Your task to perform on an android device: toggle show notifications on the lock screen Image 0: 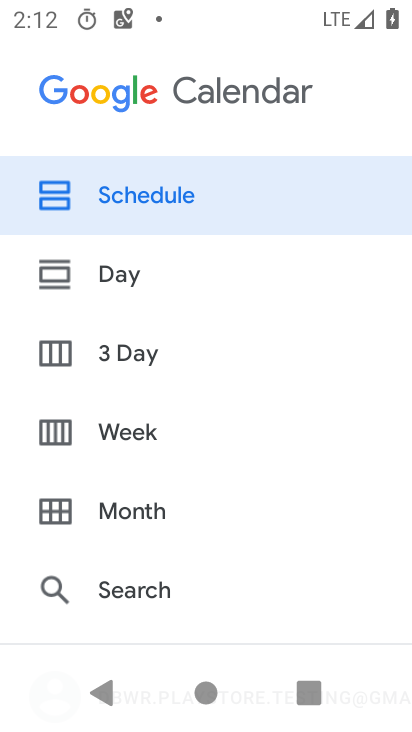
Step 0: drag from (200, 461) to (275, 168)
Your task to perform on an android device: toggle show notifications on the lock screen Image 1: 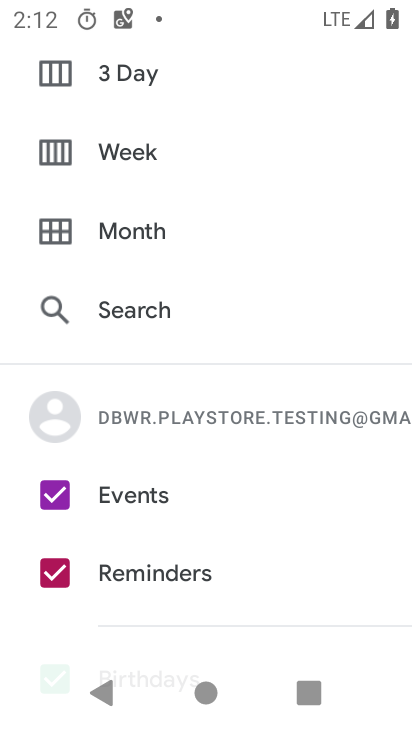
Step 1: drag from (161, 551) to (266, 258)
Your task to perform on an android device: toggle show notifications on the lock screen Image 2: 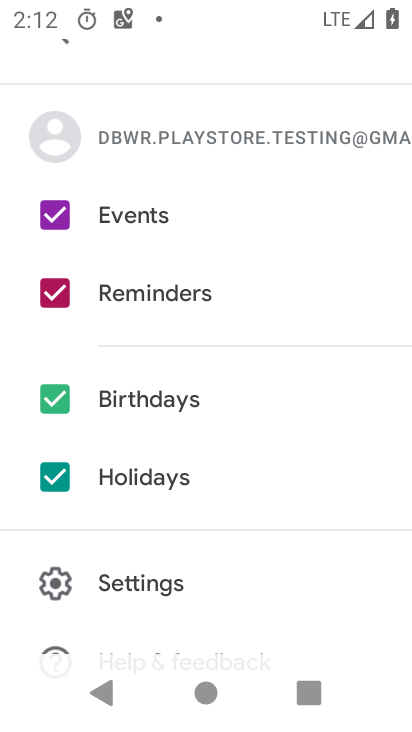
Step 2: press home button
Your task to perform on an android device: toggle show notifications on the lock screen Image 3: 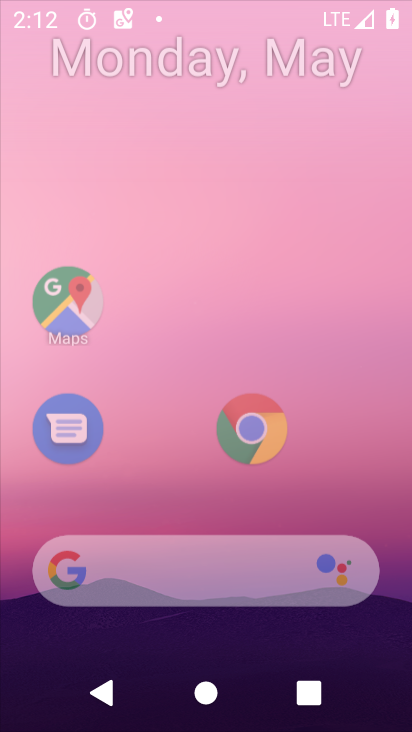
Step 3: drag from (130, 592) to (351, 42)
Your task to perform on an android device: toggle show notifications on the lock screen Image 4: 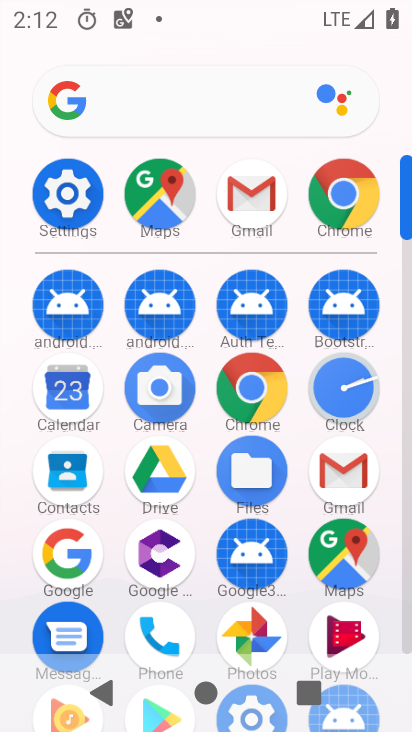
Step 4: click (52, 176)
Your task to perform on an android device: toggle show notifications on the lock screen Image 5: 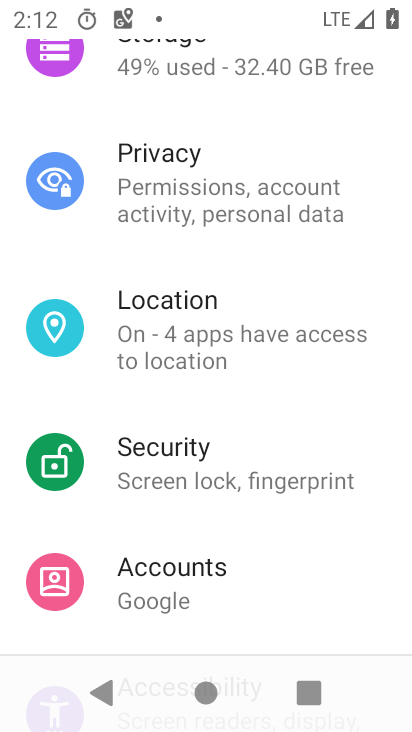
Step 5: drag from (243, 502) to (343, 115)
Your task to perform on an android device: toggle show notifications on the lock screen Image 6: 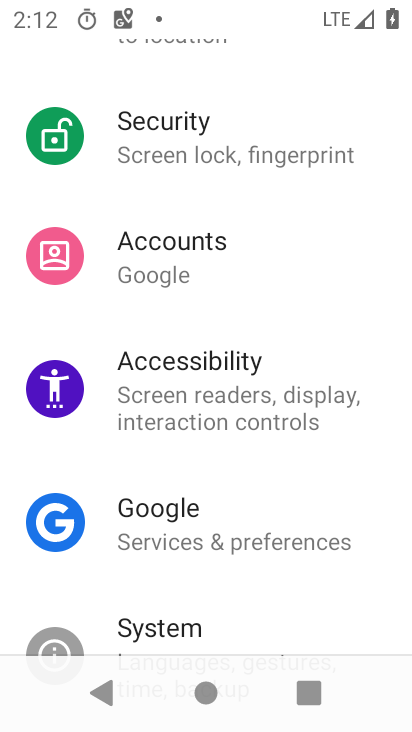
Step 6: drag from (277, 201) to (332, 661)
Your task to perform on an android device: toggle show notifications on the lock screen Image 7: 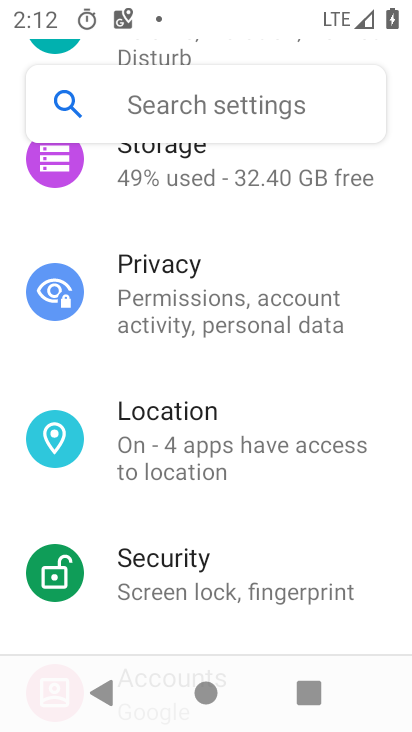
Step 7: drag from (183, 285) to (233, 658)
Your task to perform on an android device: toggle show notifications on the lock screen Image 8: 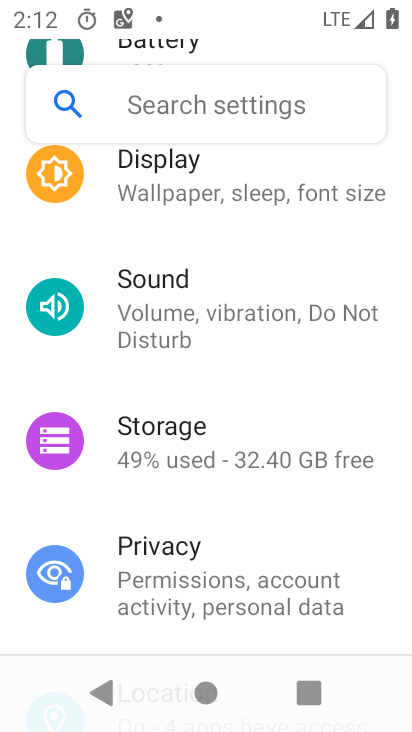
Step 8: drag from (231, 268) to (215, 693)
Your task to perform on an android device: toggle show notifications on the lock screen Image 9: 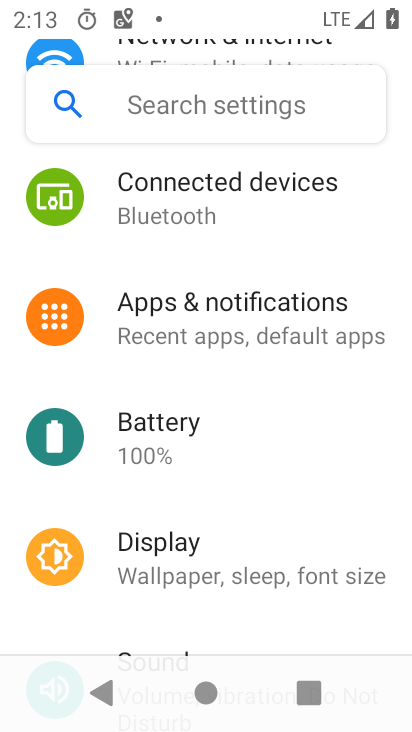
Step 9: click (182, 322)
Your task to perform on an android device: toggle show notifications on the lock screen Image 10: 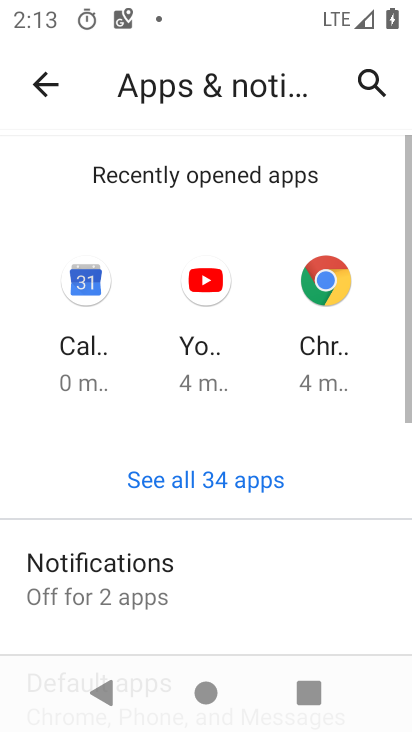
Step 10: drag from (220, 647) to (313, 94)
Your task to perform on an android device: toggle show notifications on the lock screen Image 11: 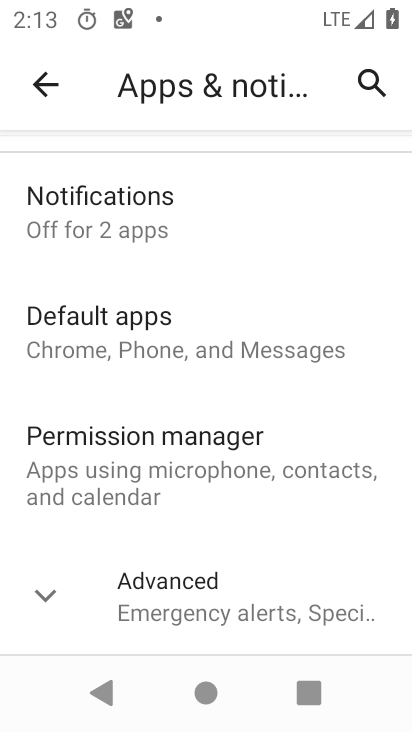
Step 11: click (187, 209)
Your task to perform on an android device: toggle show notifications on the lock screen Image 12: 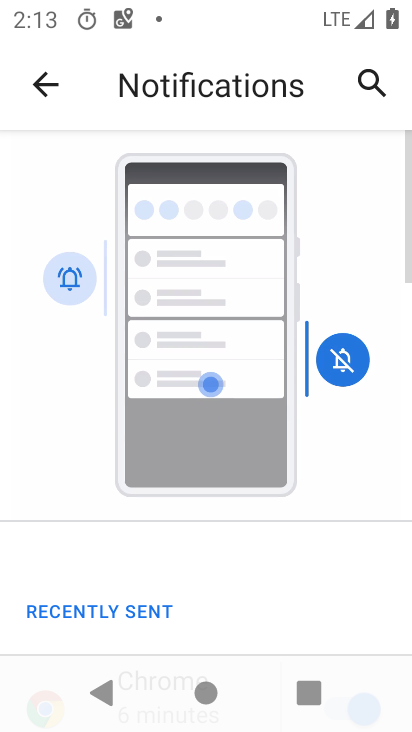
Step 12: drag from (218, 510) to (304, 114)
Your task to perform on an android device: toggle show notifications on the lock screen Image 13: 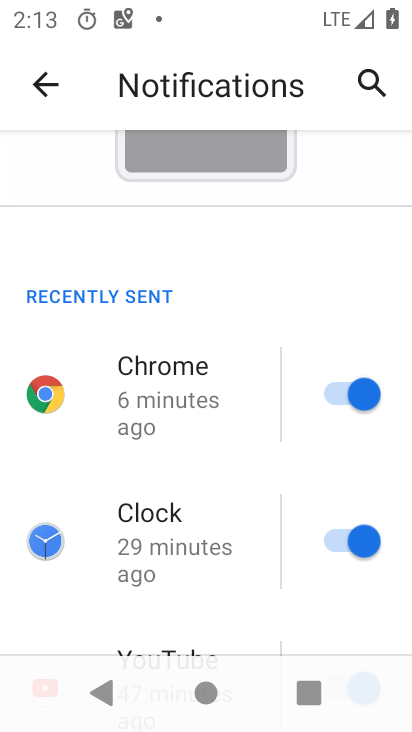
Step 13: drag from (237, 527) to (323, 155)
Your task to perform on an android device: toggle show notifications on the lock screen Image 14: 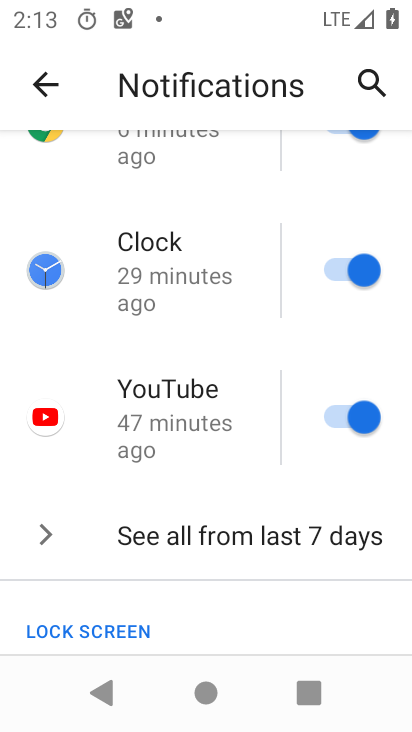
Step 14: drag from (257, 568) to (297, 96)
Your task to perform on an android device: toggle show notifications on the lock screen Image 15: 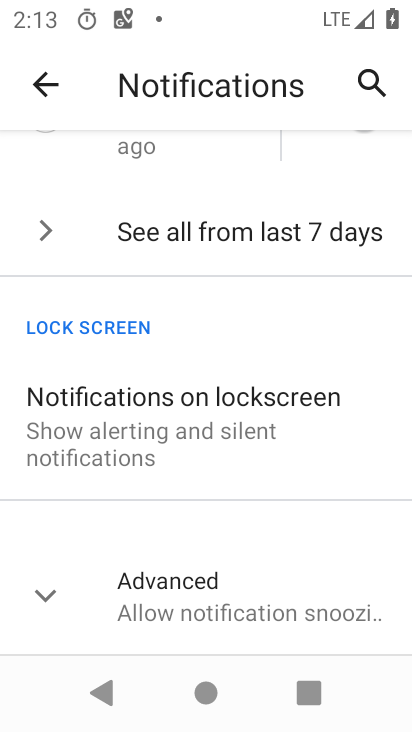
Step 15: click (208, 421)
Your task to perform on an android device: toggle show notifications on the lock screen Image 16: 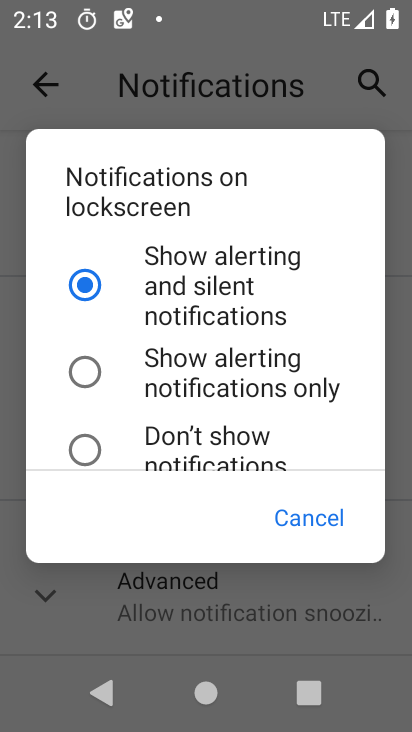
Step 16: click (98, 360)
Your task to perform on an android device: toggle show notifications on the lock screen Image 17: 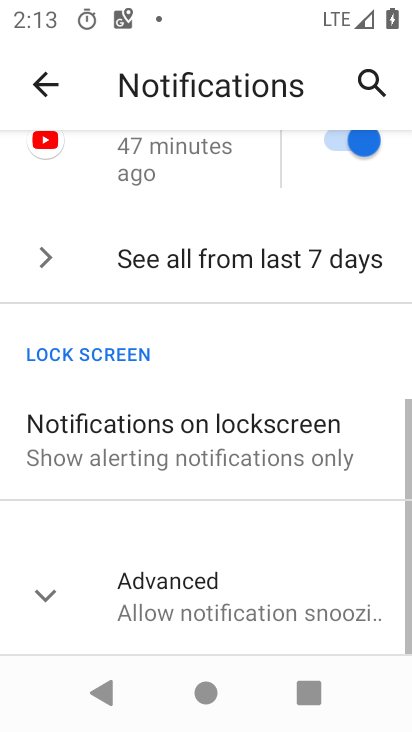
Step 17: task complete